Your task to perform on an android device: Open CNN.com Image 0: 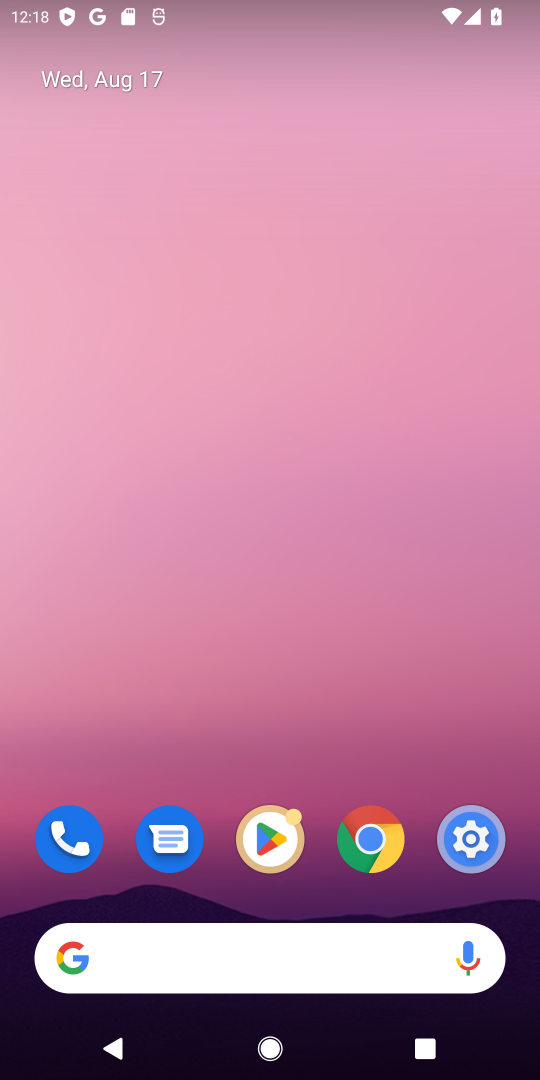
Step 0: click (372, 840)
Your task to perform on an android device: Open CNN.com Image 1: 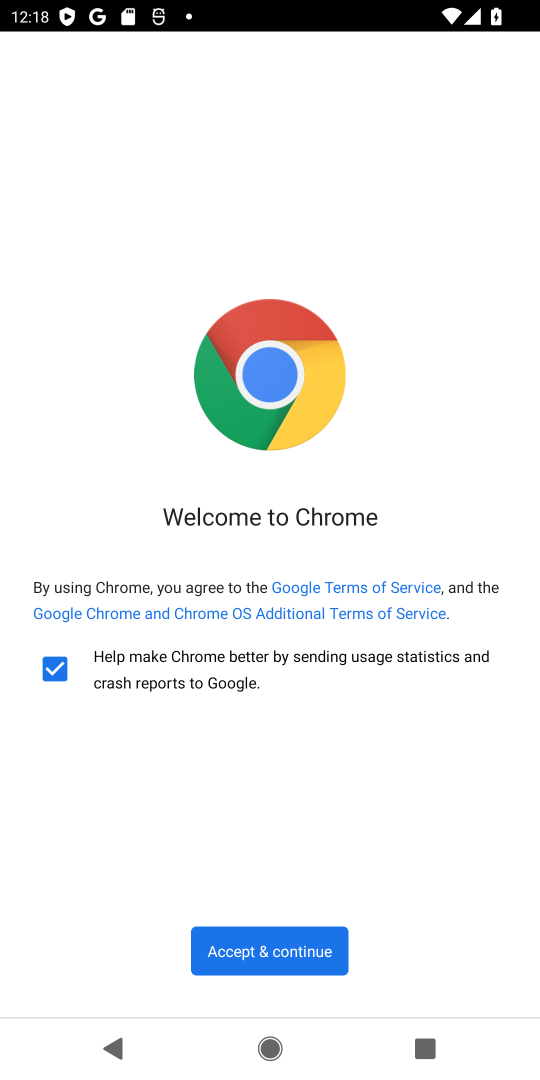
Step 1: click (268, 968)
Your task to perform on an android device: Open CNN.com Image 2: 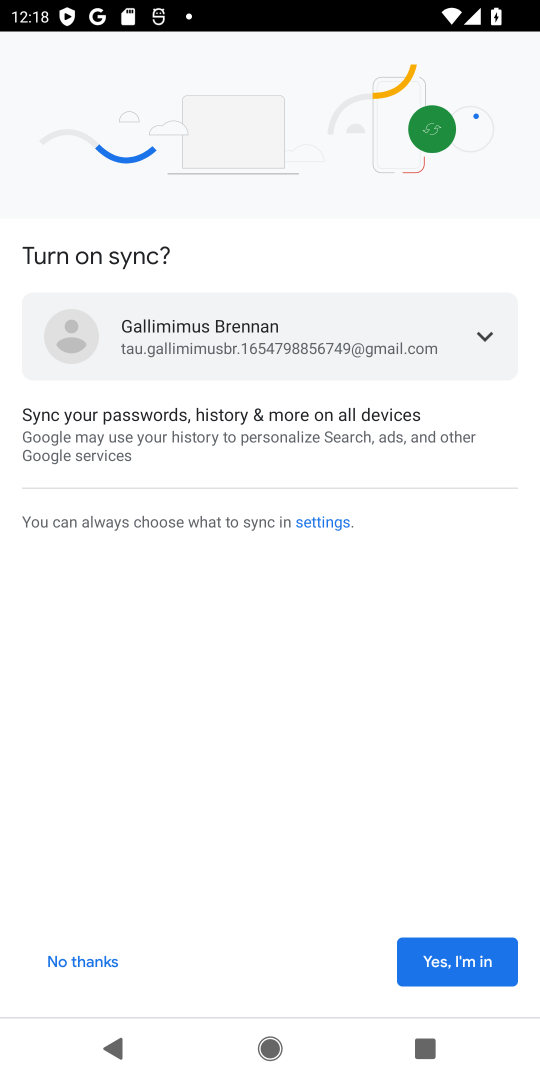
Step 2: click (443, 960)
Your task to perform on an android device: Open CNN.com Image 3: 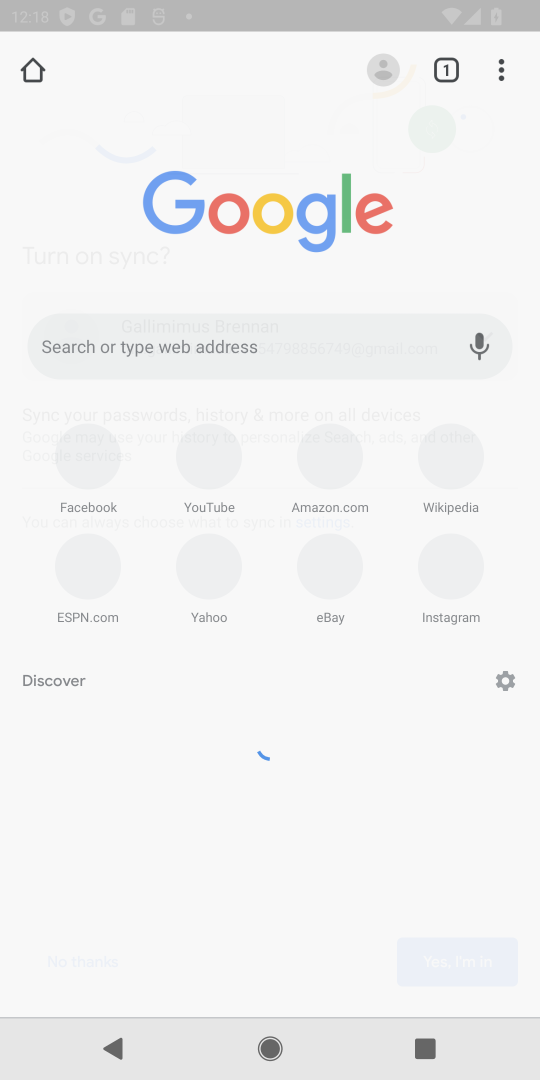
Step 3: click (436, 958)
Your task to perform on an android device: Open CNN.com Image 4: 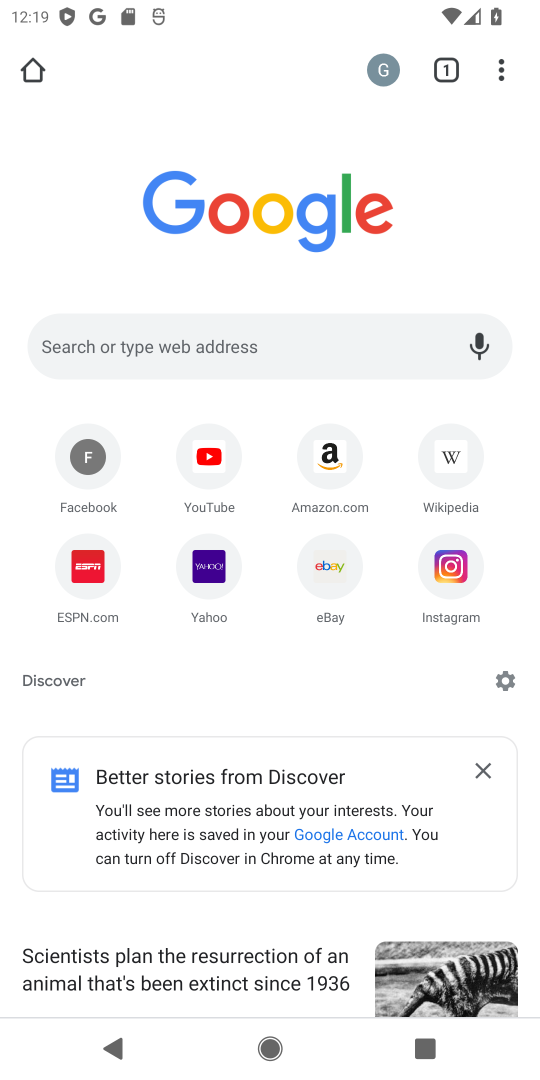
Step 4: click (277, 340)
Your task to perform on an android device: Open CNN.com Image 5: 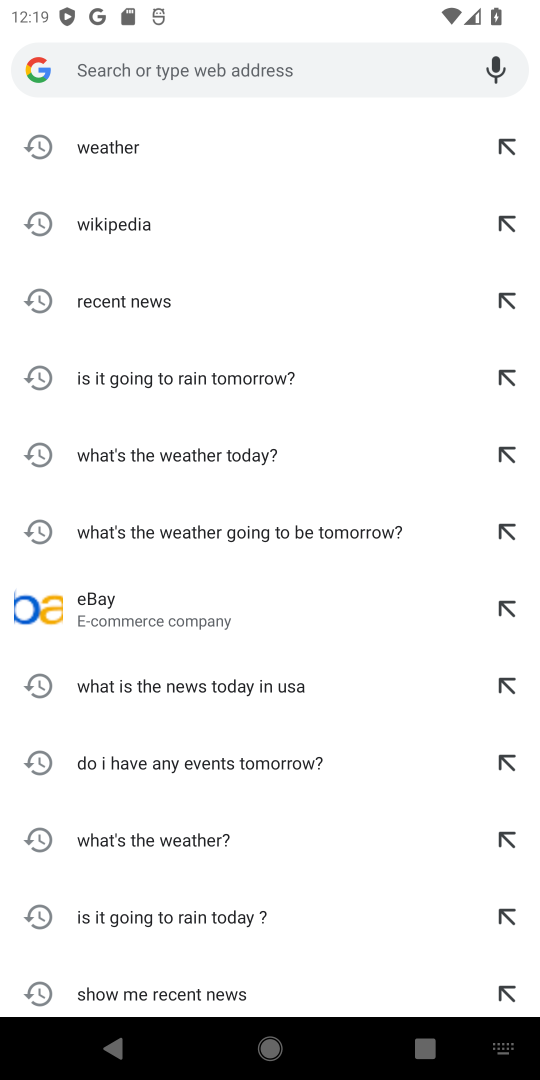
Step 5: type "CNN.com"
Your task to perform on an android device: Open CNN.com Image 6: 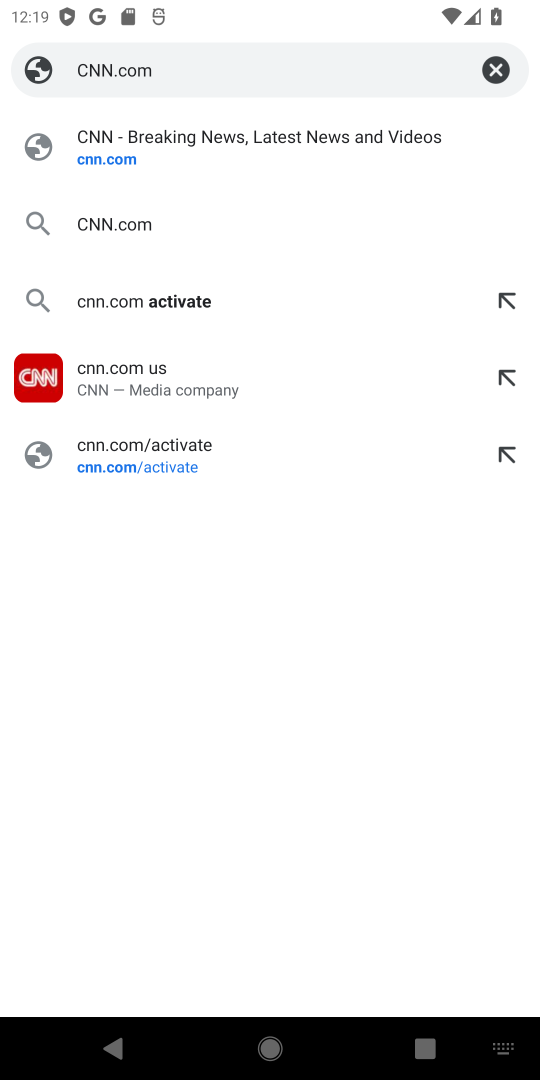
Step 6: click (115, 224)
Your task to perform on an android device: Open CNN.com Image 7: 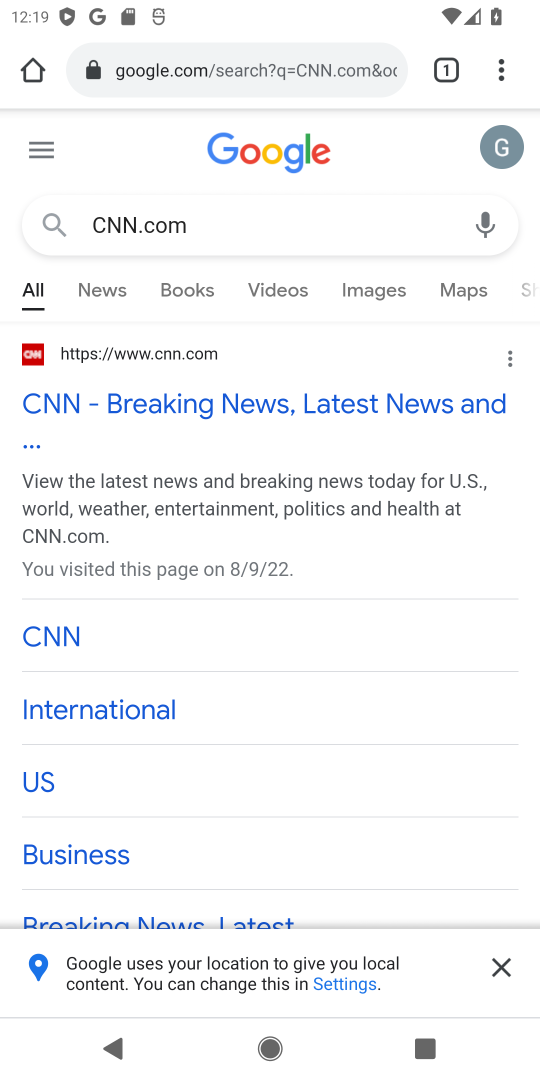
Step 7: click (193, 394)
Your task to perform on an android device: Open CNN.com Image 8: 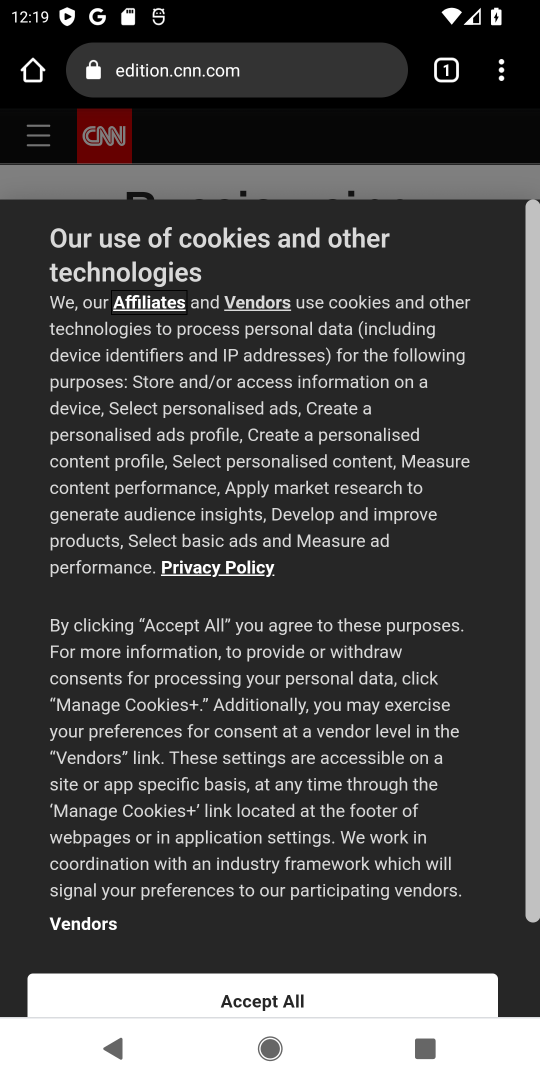
Step 8: click (260, 1003)
Your task to perform on an android device: Open CNN.com Image 9: 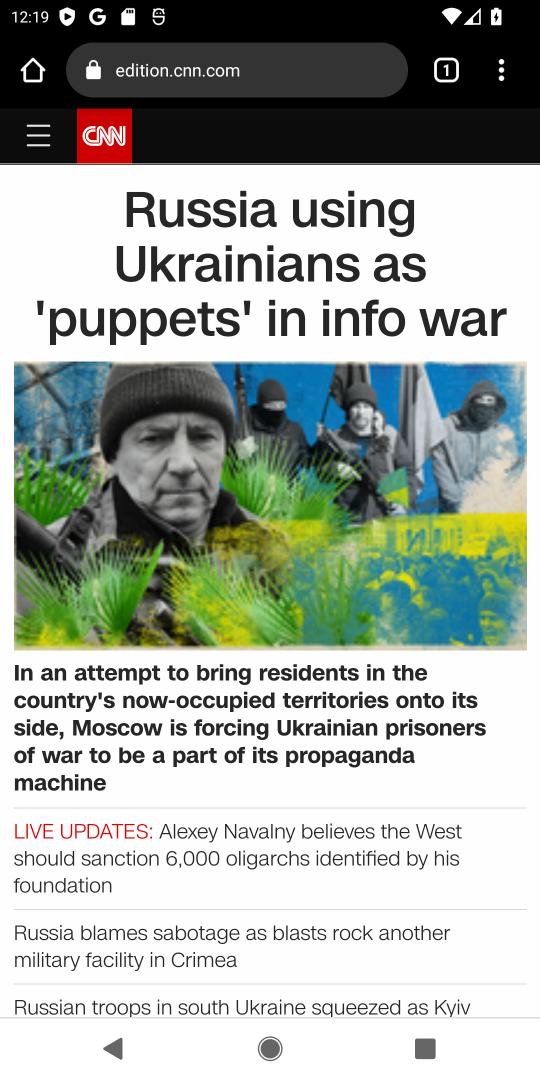
Step 9: task complete